Your task to perform on an android device: turn off javascript in the chrome app Image 0: 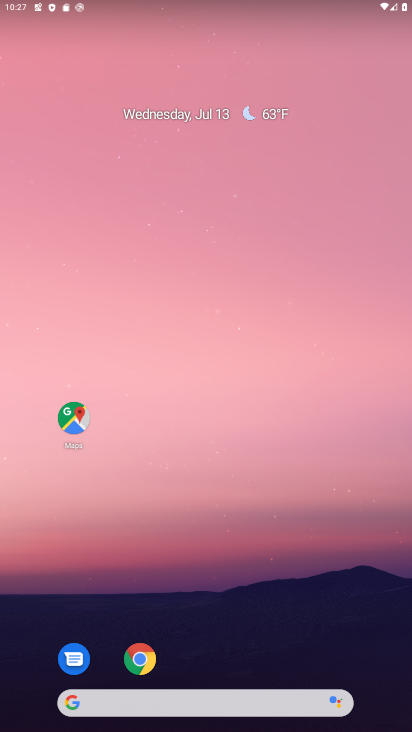
Step 0: drag from (283, 628) to (254, 148)
Your task to perform on an android device: turn off javascript in the chrome app Image 1: 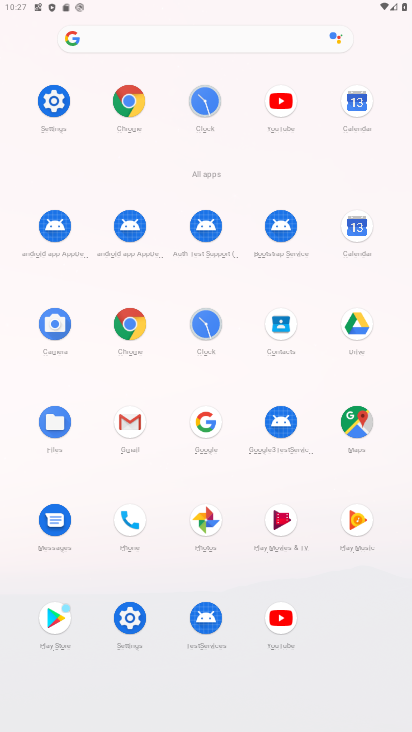
Step 1: click (134, 324)
Your task to perform on an android device: turn off javascript in the chrome app Image 2: 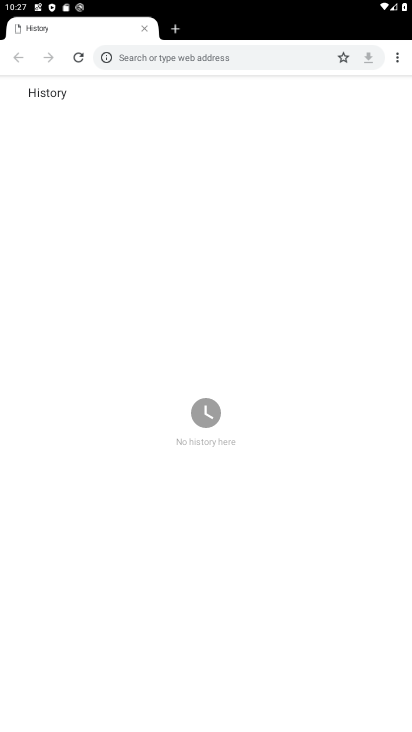
Step 2: click (398, 58)
Your task to perform on an android device: turn off javascript in the chrome app Image 3: 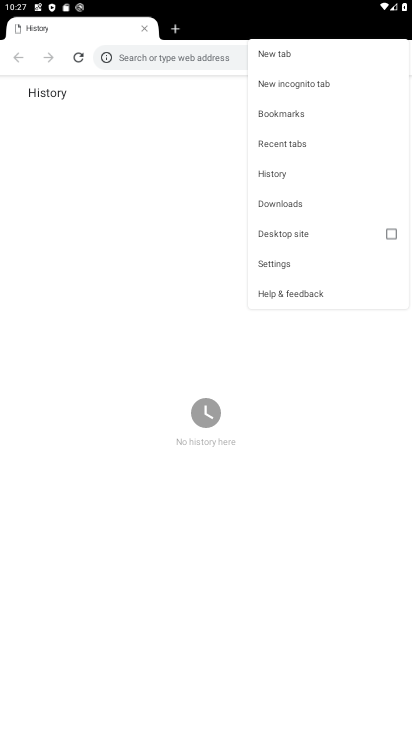
Step 3: click (272, 258)
Your task to perform on an android device: turn off javascript in the chrome app Image 4: 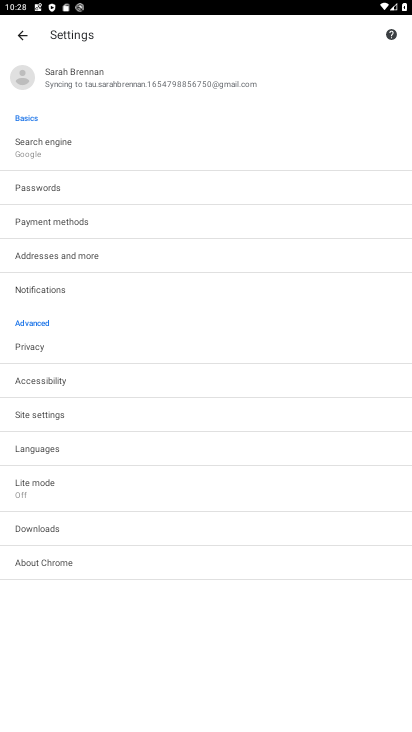
Step 4: click (65, 416)
Your task to perform on an android device: turn off javascript in the chrome app Image 5: 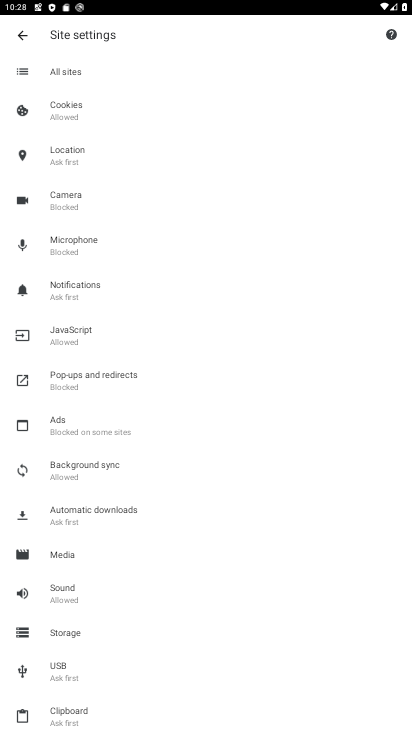
Step 5: click (94, 334)
Your task to perform on an android device: turn off javascript in the chrome app Image 6: 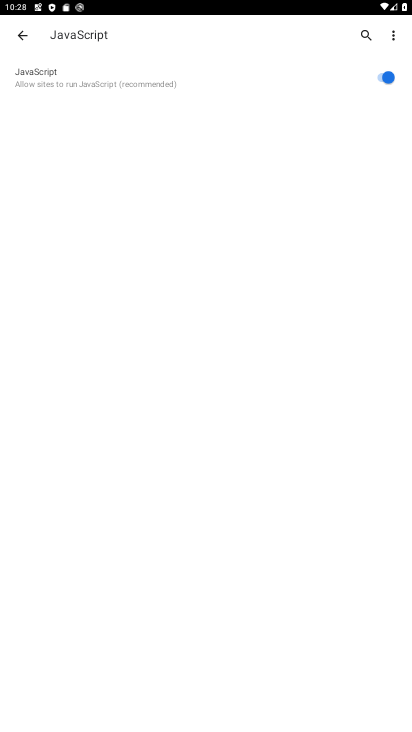
Step 6: click (375, 72)
Your task to perform on an android device: turn off javascript in the chrome app Image 7: 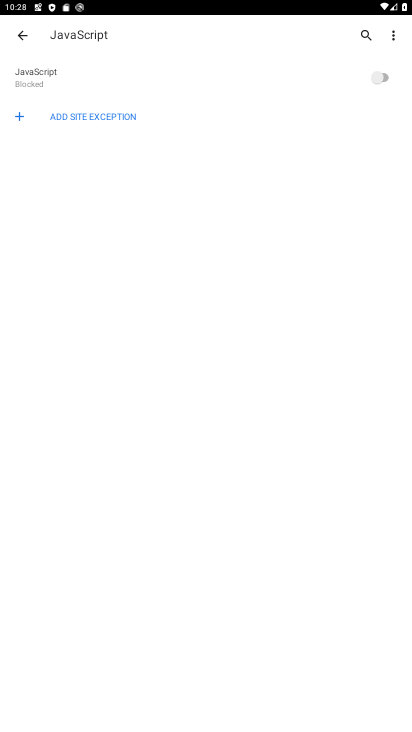
Step 7: task complete